Your task to perform on an android device: turn off notifications settings in the gmail app Image 0: 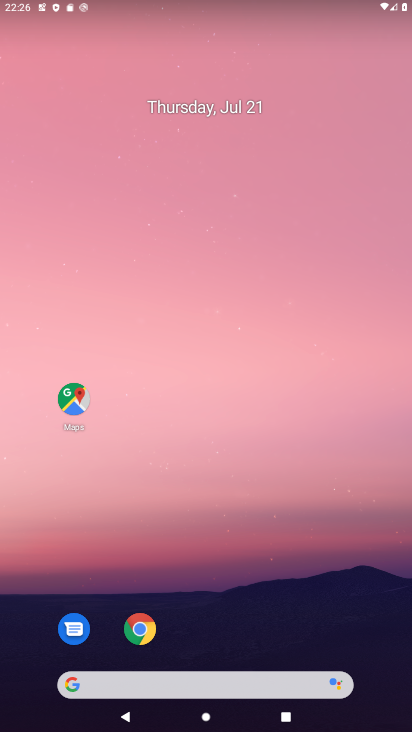
Step 0: press home button
Your task to perform on an android device: turn off notifications settings in the gmail app Image 1: 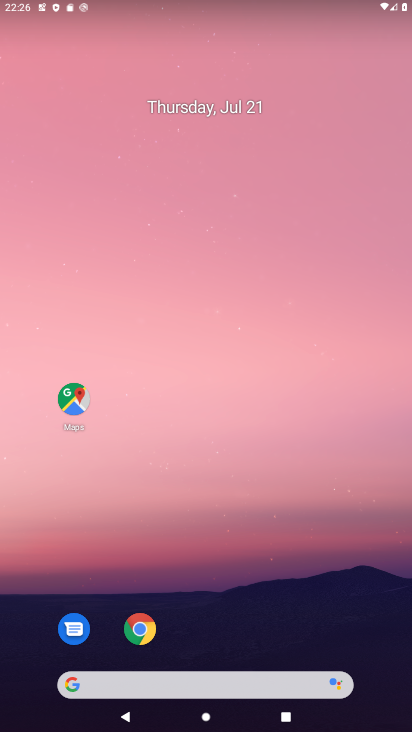
Step 1: drag from (230, 508) to (232, 131)
Your task to perform on an android device: turn off notifications settings in the gmail app Image 2: 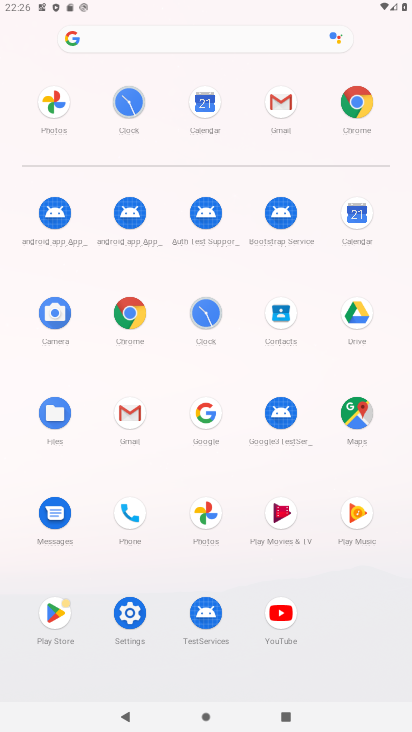
Step 2: click (277, 95)
Your task to perform on an android device: turn off notifications settings in the gmail app Image 3: 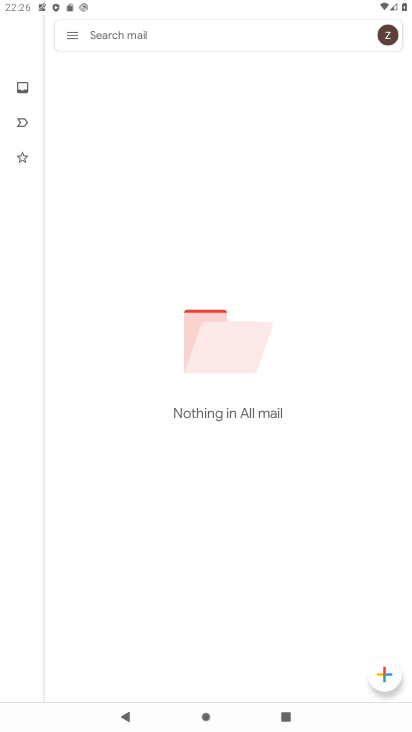
Step 3: click (77, 38)
Your task to perform on an android device: turn off notifications settings in the gmail app Image 4: 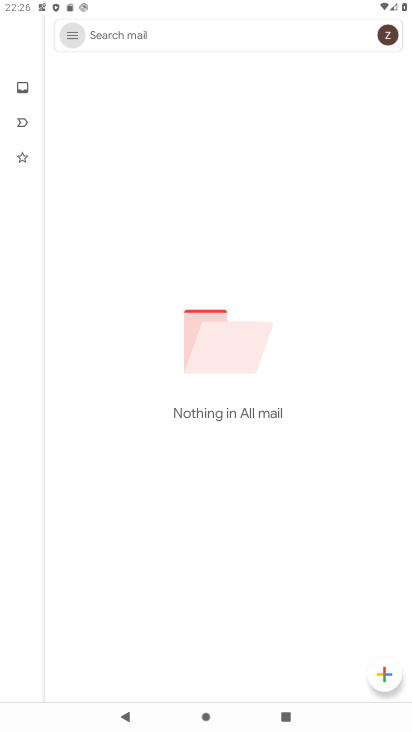
Step 4: click (76, 38)
Your task to perform on an android device: turn off notifications settings in the gmail app Image 5: 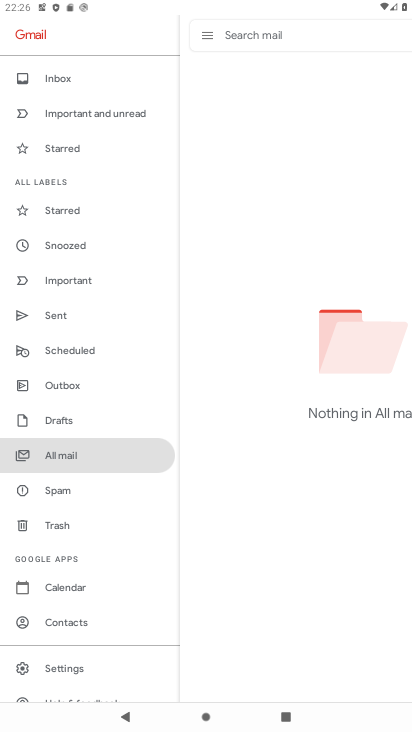
Step 5: click (61, 665)
Your task to perform on an android device: turn off notifications settings in the gmail app Image 6: 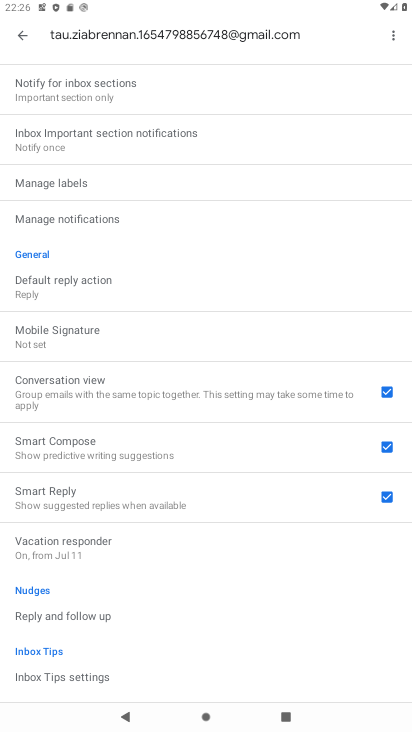
Step 6: click (101, 217)
Your task to perform on an android device: turn off notifications settings in the gmail app Image 7: 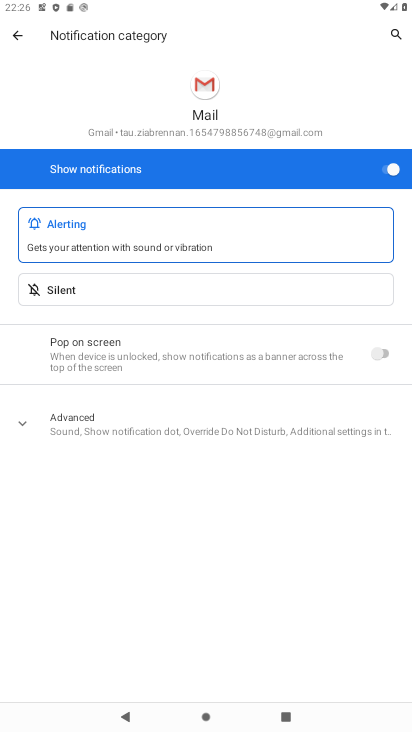
Step 7: click (388, 158)
Your task to perform on an android device: turn off notifications settings in the gmail app Image 8: 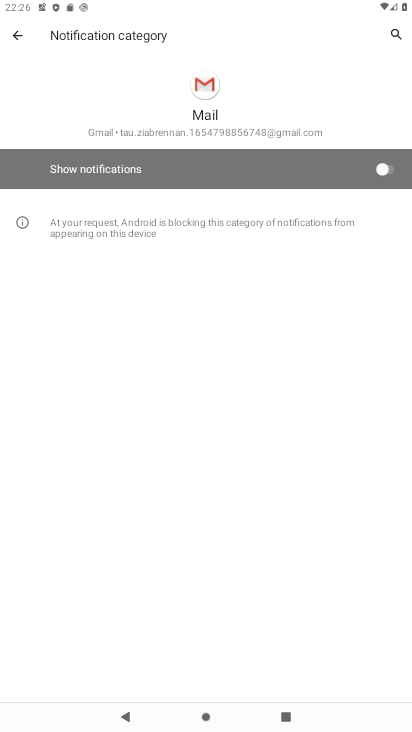
Step 8: task complete